Your task to perform on an android device: Go to Yahoo.com Image 0: 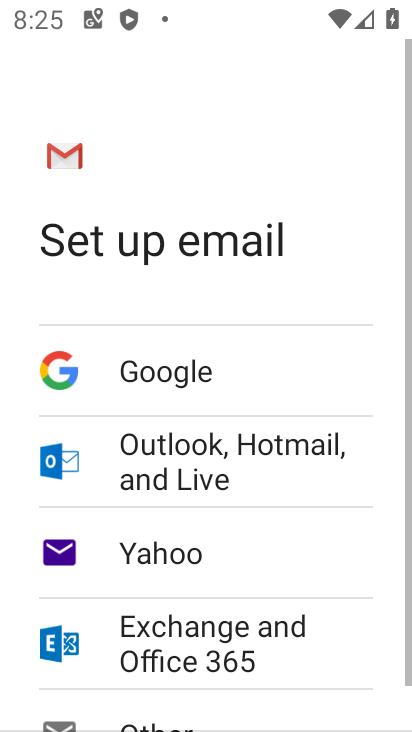
Step 0: press home button
Your task to perform on an android device: Go to Yahoo.com Image 1: 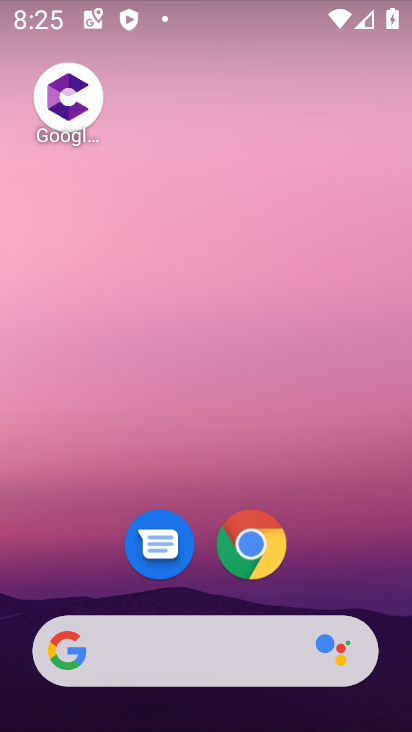
Step 1: click (240, 570)
Your task to perform on an android device: Go to Yahoo.com Image 2: 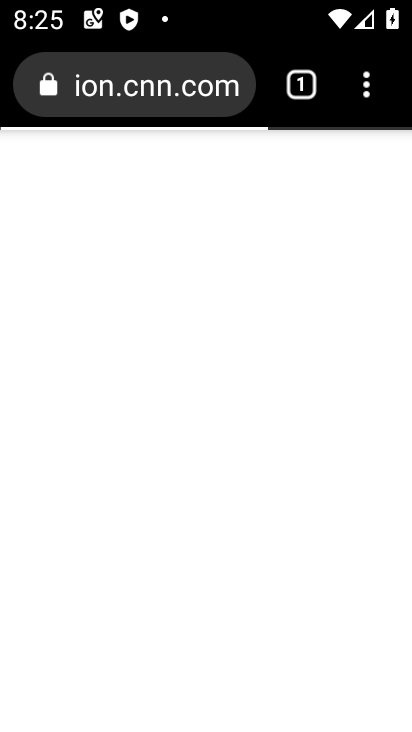
Step 2: click (147, 80)
Your task to perform on an android device: Go to Yahoo.com Image 3: 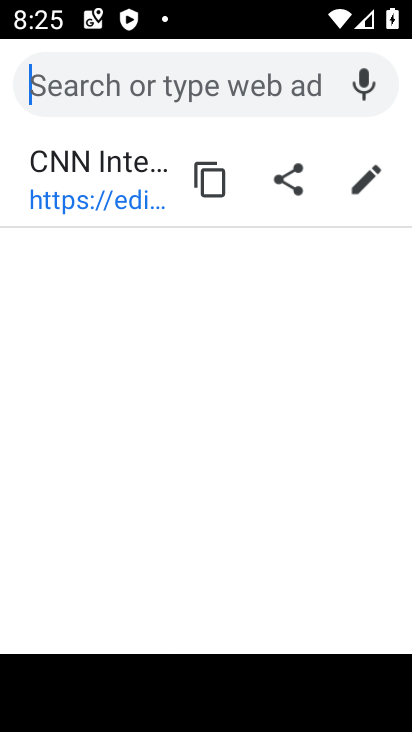
Step 3: type "www.yahoo.com"
Your task to perform on an android device: Go to Yahoo.com Image 4: 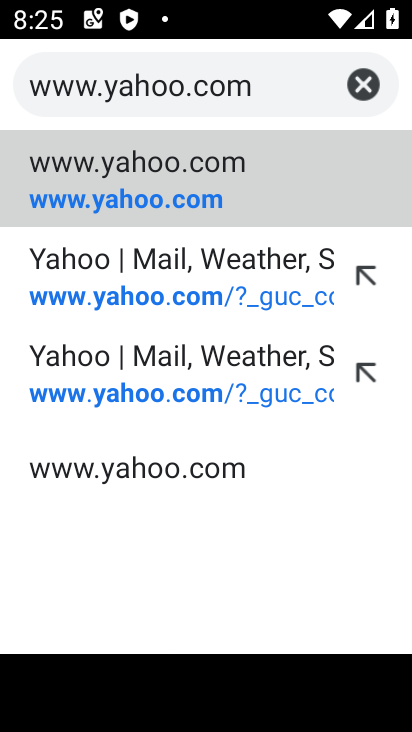
Step 4: click (115, 196)
Your task to perform on an android device: Go to Yahoo.com Image 5: 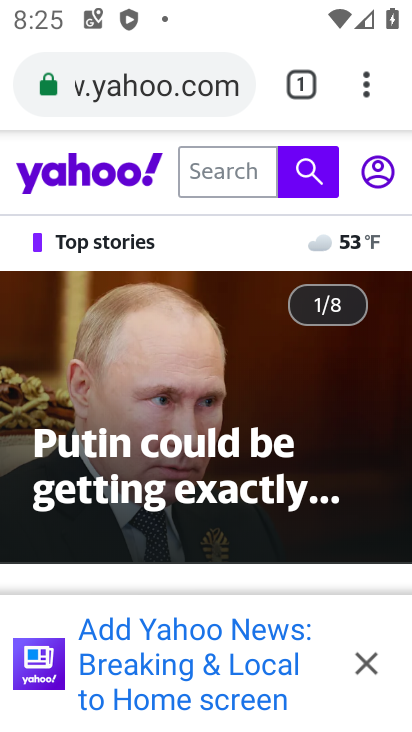
Step 5: task complete